Your task to perform on an android device: change the clock style Image 0: 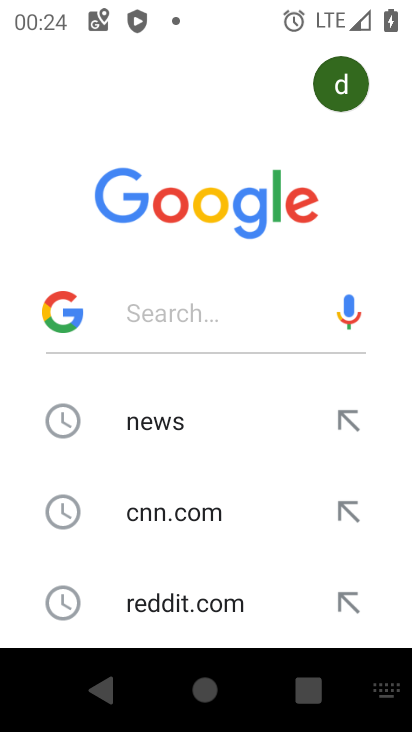
Step 0: press home button
Your task to perform on an android device: change the clock style Image 1: 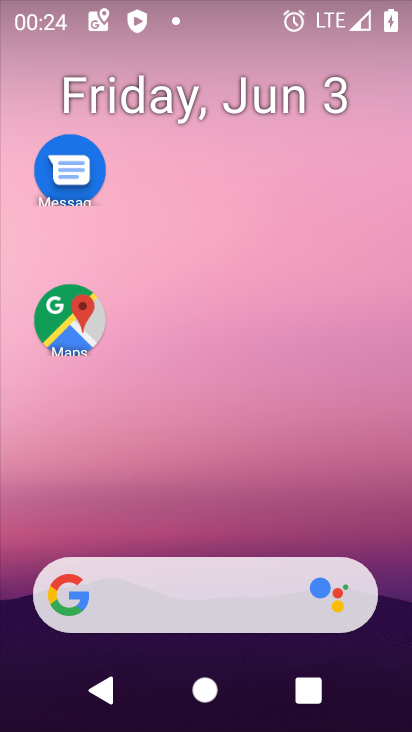
Step 1: drag from (378, 697) to (356, 105)
Your task to perform on an android device: change the clock style Image 2: 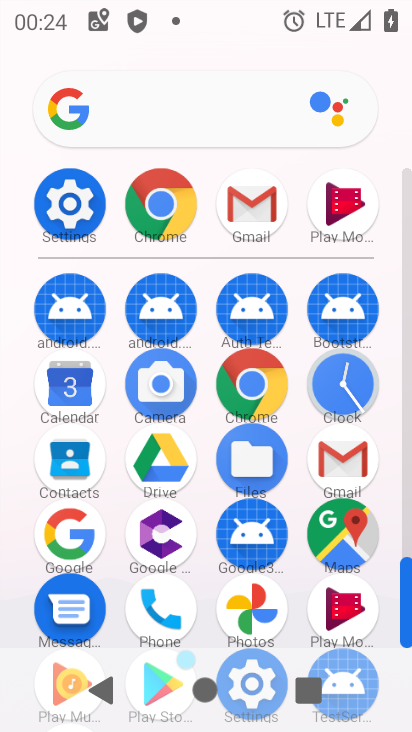
Step 2: click (305, 398)
Your task to perform on an android device: change the clock style Image 3: 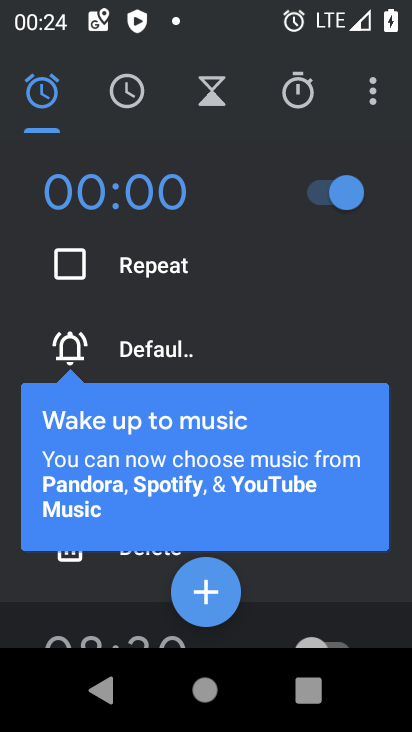
Step 3: drag from (369, 58) to (243, 196)
Your task to perform on an android device: change the clock style Image 4: 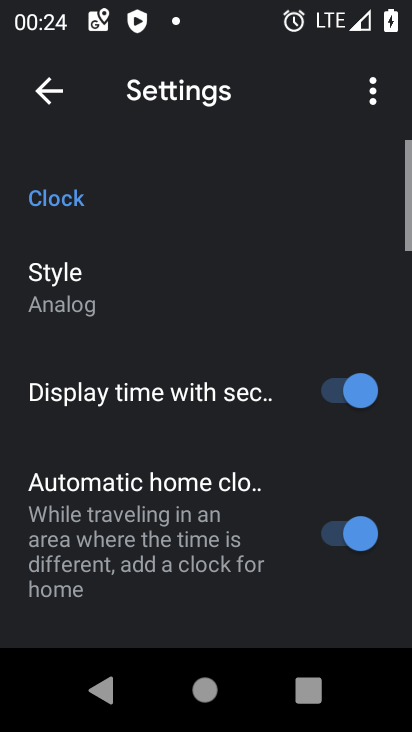
Step 4: click (84, 268)
Your task to perform on an android device: change the clock style Image 5: 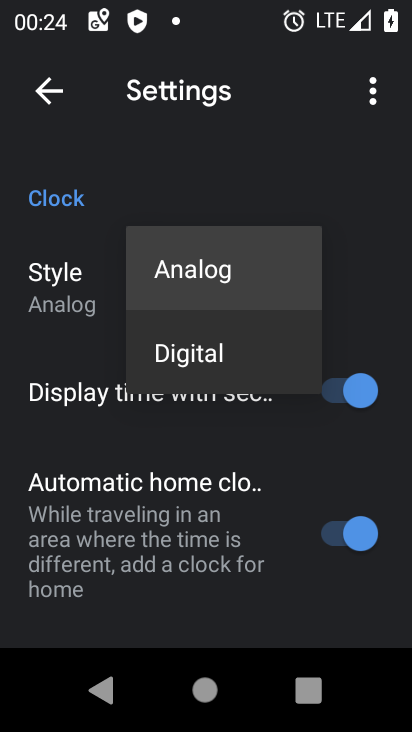
Step 5: click (174, 350)
Your task to perform on an android device: change the clock style Image 6: 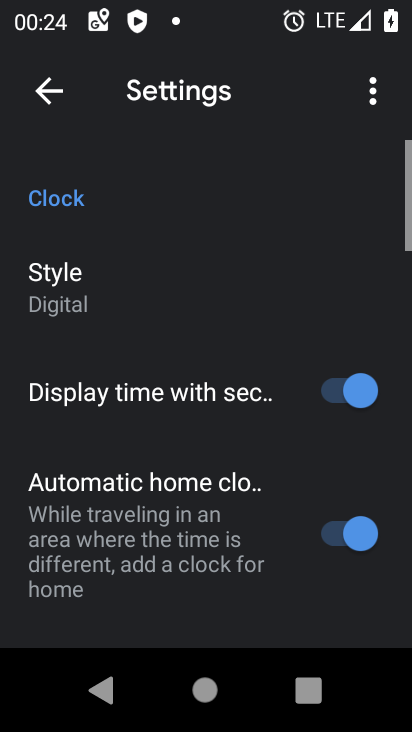
Step 6: task complete